Your task to perform on an android device: What is the recent news? Image 0: 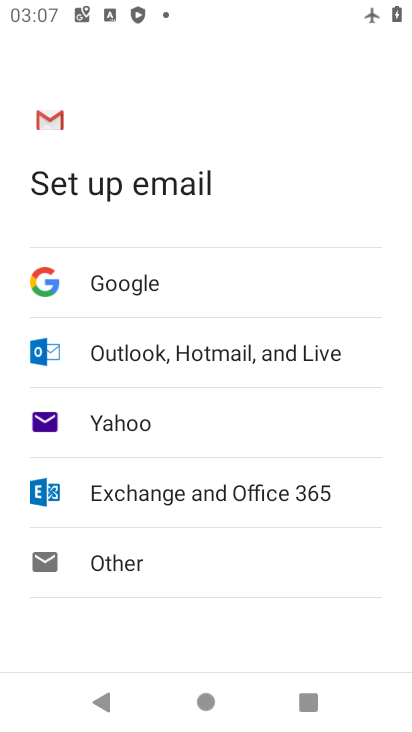
Step 0: press home button
Your task to perform on an android device: What is the recent news? Image 1: 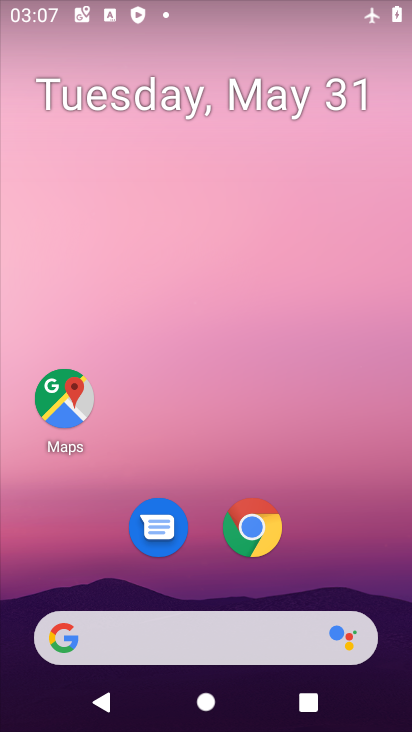
Step 1: task complete